Your task to perform on an android device: Open the stopwatch Image 0: 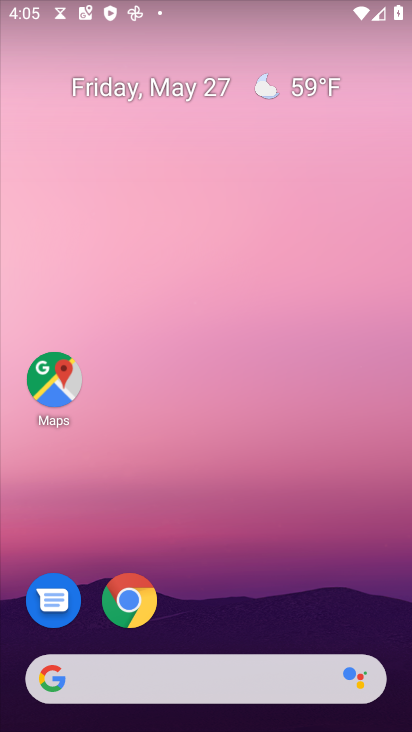
Step 0: drag from (241, 603) to (148, 87)
Your task to perform on an android device: Open the stopwatch Image 1: 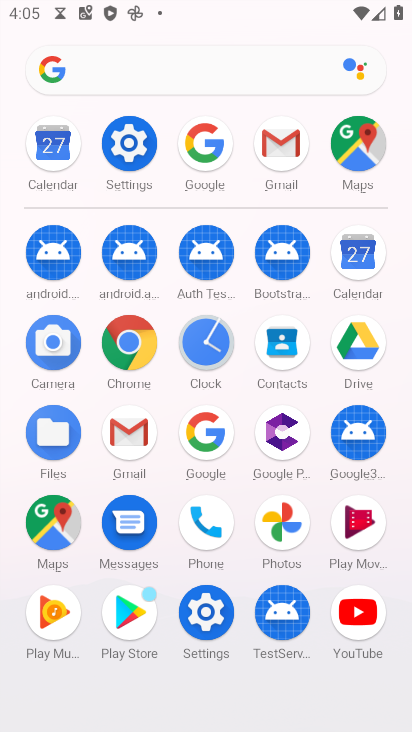
Step 1: click (201, 343)
Your task to perform on an android device: Open the stopwatch Image 2: 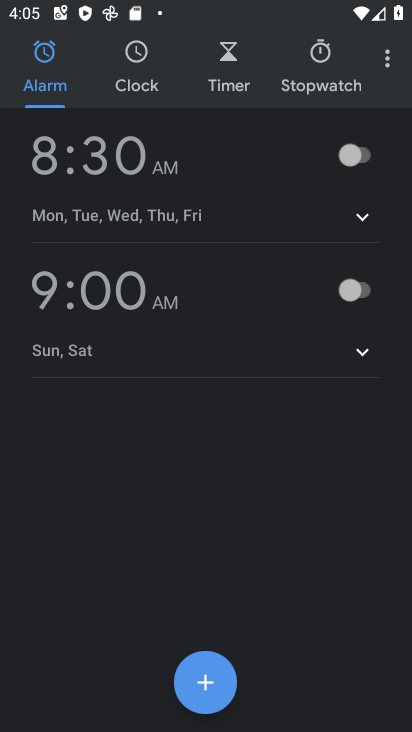
Step 2: click (317, 52)
Your task to perform on an android device: Open the stopwatch Image 3: 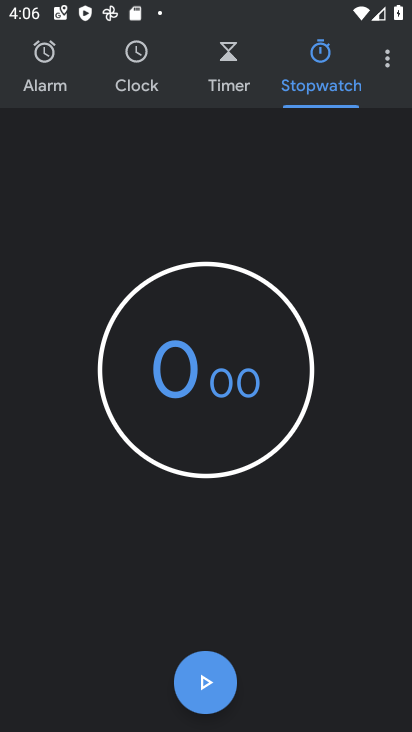
Step 3: task complete